Your task to perform on an android device: Open network settings Image 0: 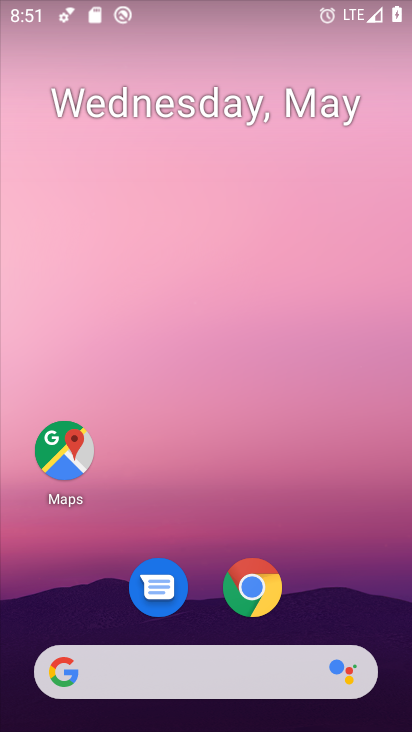
Step 0: drag from (204, 622) to (247, 266)
Your task to perform on an android device: Open network settings Image 1: 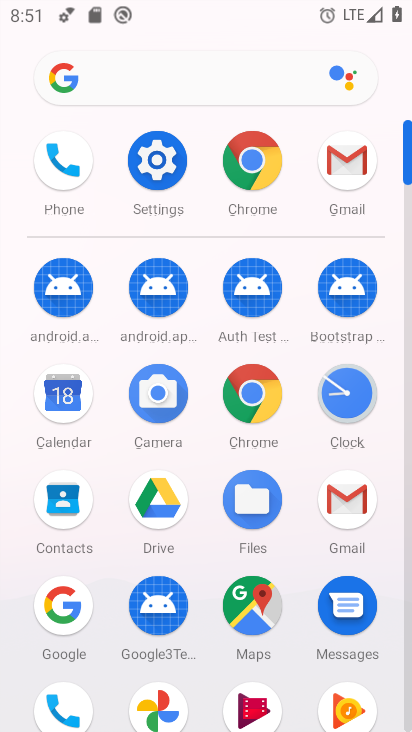
Step 1: click (163, 173)
Your task to perform on an android device: Open network settings Image 2: 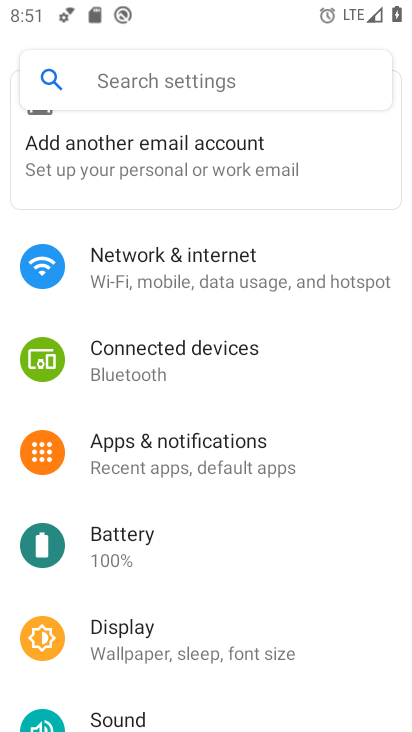
Step 2: click (182, 224)
Your task to perform on an android device: Open network settings Image 3: 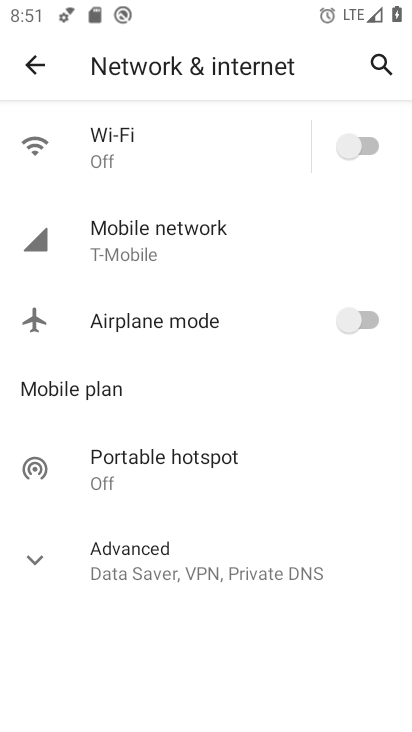
Step 3: click (191, 222)
Your task to perform on an android device: Open network settings Image 4: 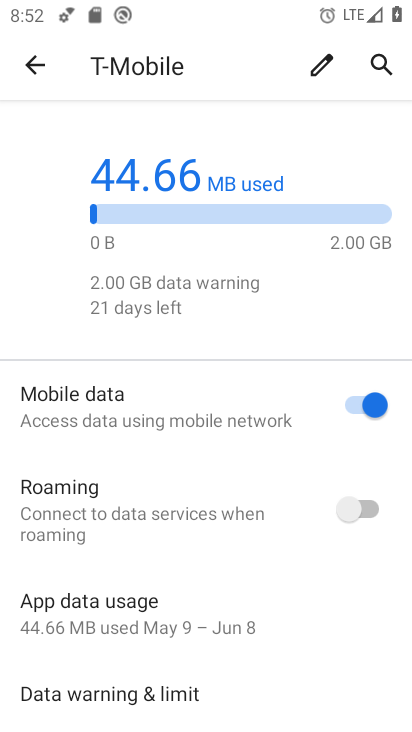
Step 4: task complete